Your task to perform on an android device: Open Google Image 0: 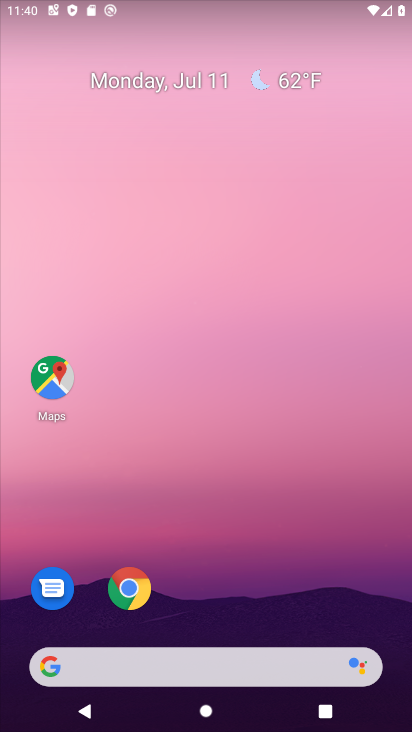
Step 0: click (138, 668)
Your task to perform on an android device: Open Google Image 1: 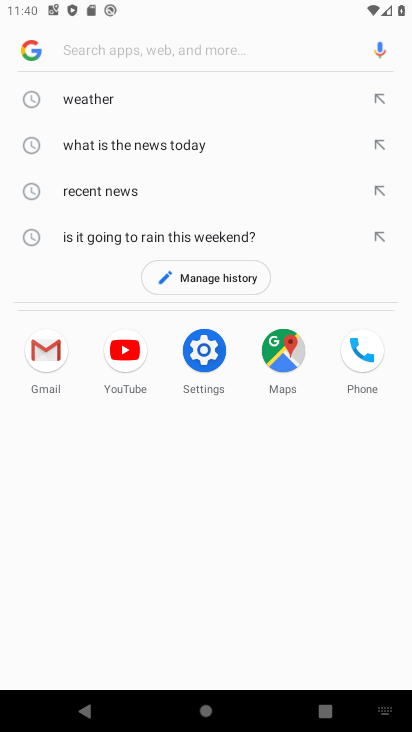
Step 1: task complete